Your task to perform on an android device: toggle priority inbox in the gmail app Image 0: 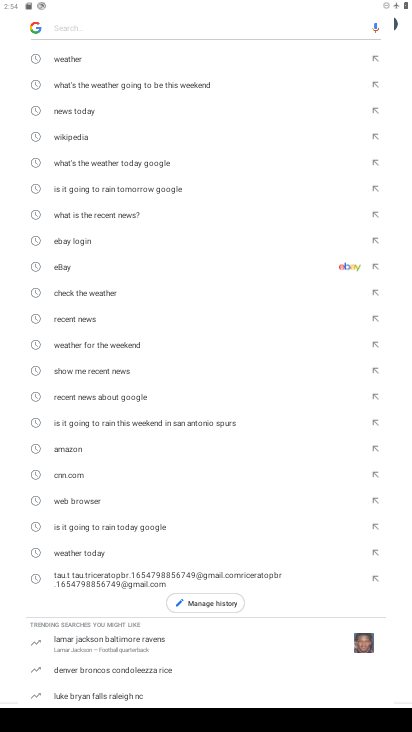
Step 0: press home button
Your task to perform on an android device: toggle priority inbox in the gmail app Image 1: 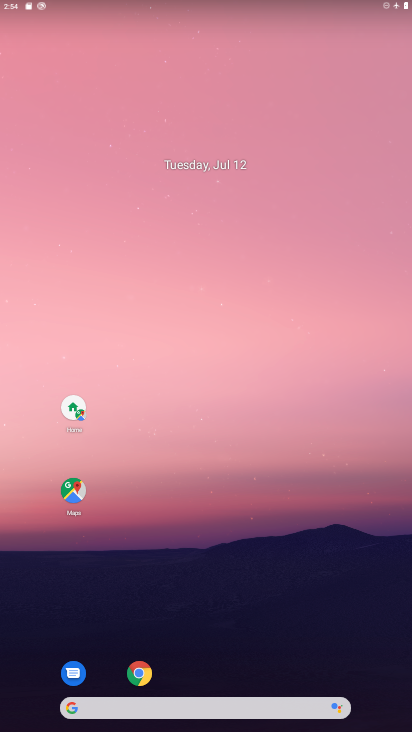
Step 1: drag from (286, 652) to (289, 338)
Your task to perform on an android device: toggle priority inbox in the gmail app Image 2: 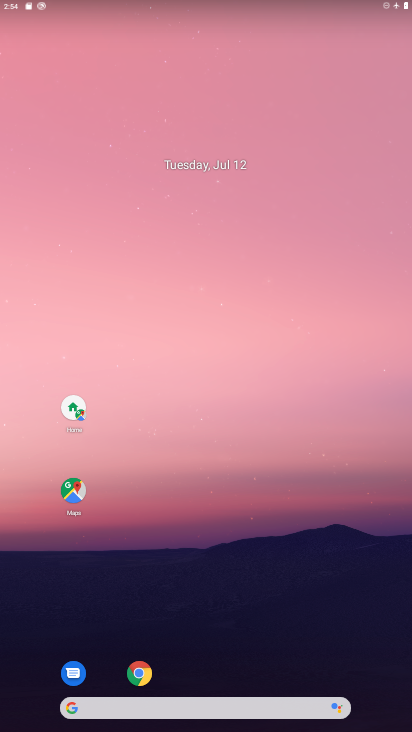
Step 2: drag from (228, 351) to (228, 187)
Your task to perform on an android device: toggle priority inbox in the gmail app Image 3: 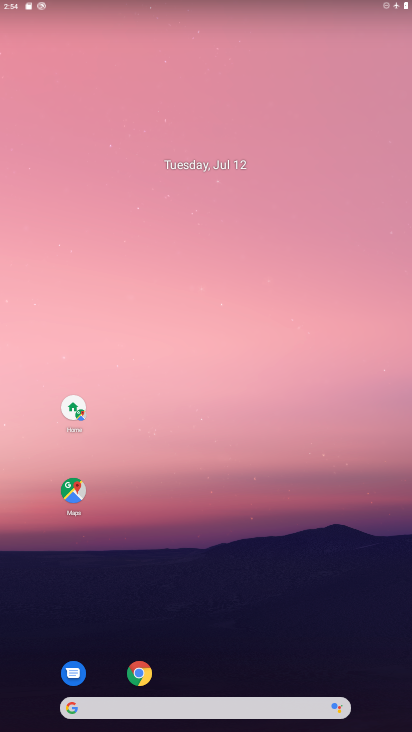
Step 3: drag from (212, 666) to (237, 109)
Your task to perform on an android device: toggle priority inbox in the gmail app Image 4: 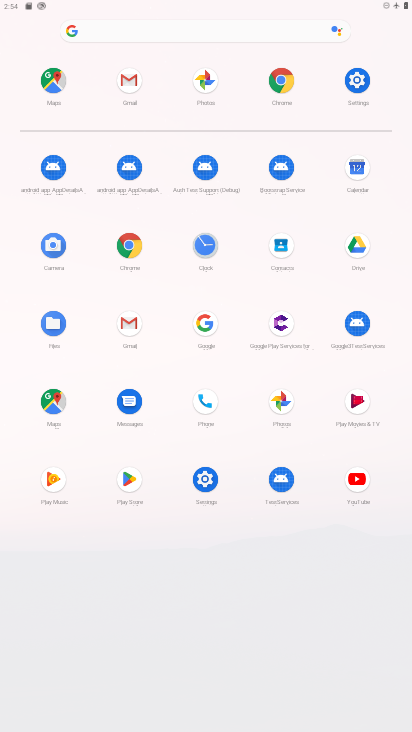
Step 4: click (131, 80)
Your task to perform on an android device: toggle priority inbox in the gmail app Image 5: 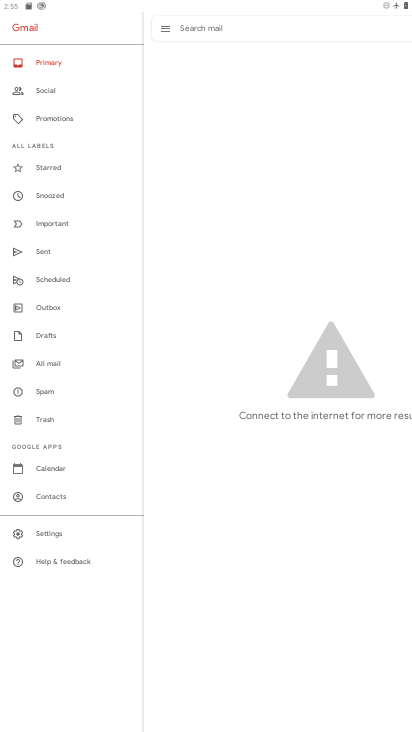
Step 5: click (48, 532)
Your task to perform on an android device: toggle priority inbox in the gmail app Image 6: 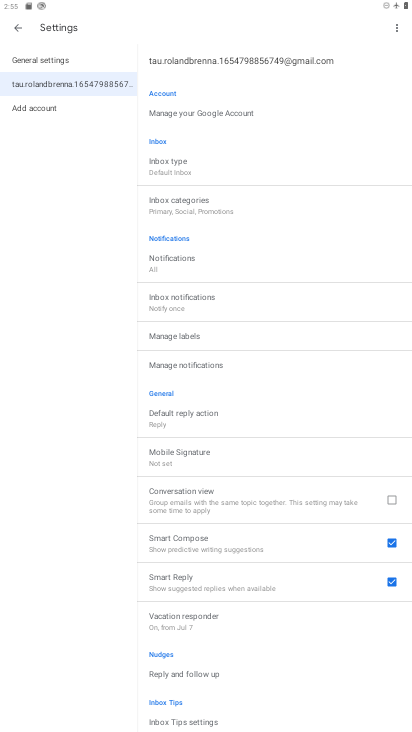
Step 6: click (212, 165)
Your task to perform on an android device: toggle priority inbox in the gmail app Image 7: 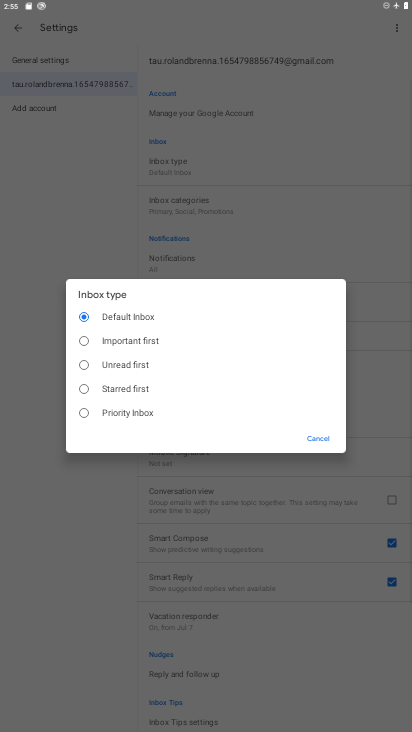
Step 7: click (117, 417)
Your task to perform on an android device: toggle priority inbox in the gmail app Image 8: 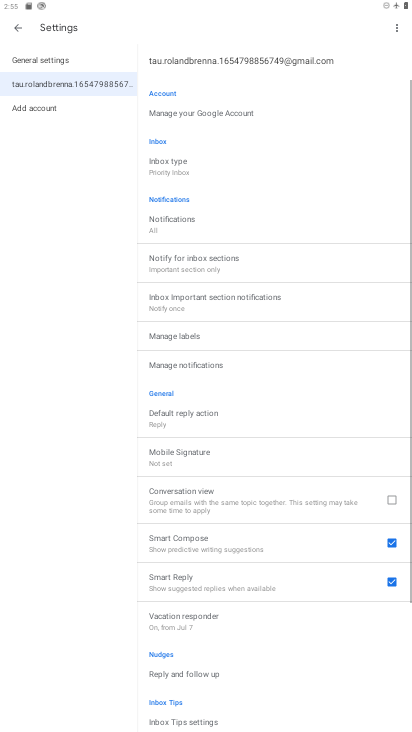
Step 8: task complete